Your task to perform on an android device: What is the recent news? Image 0: 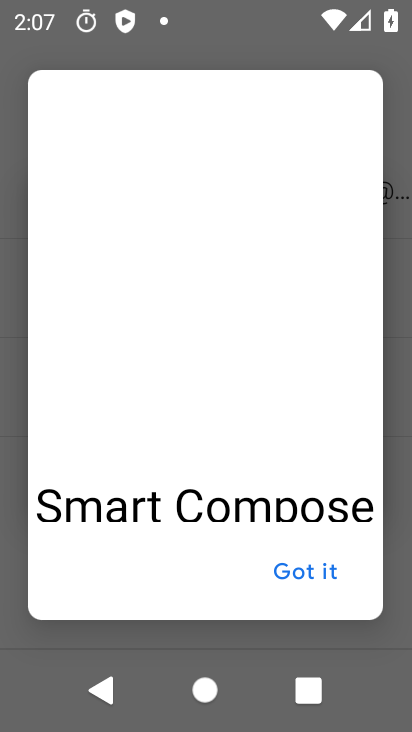
Step 0: drag from (192, 579) to (261, 92)
Your task to perform on an android device: What is the recent news? Image 1: 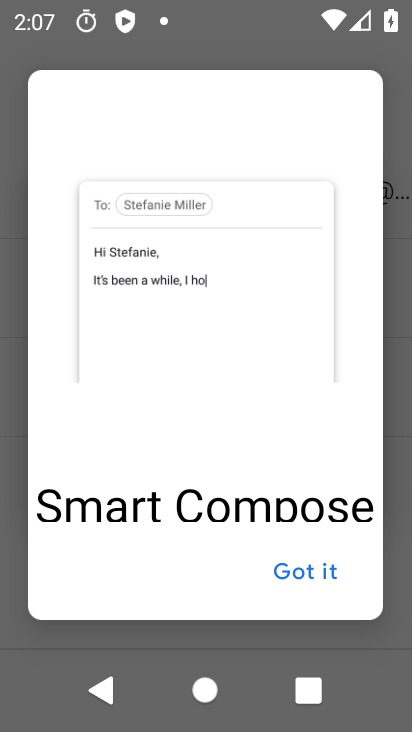
Step 1: task complete